Your task to perform on an android device: Open wifi settings Image 0: 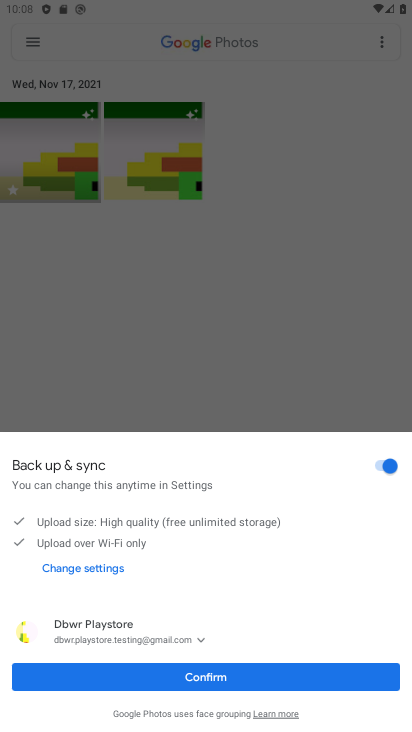
Step 0: press home button
Your task to perform on an android device: Open wifi settings Image 1: 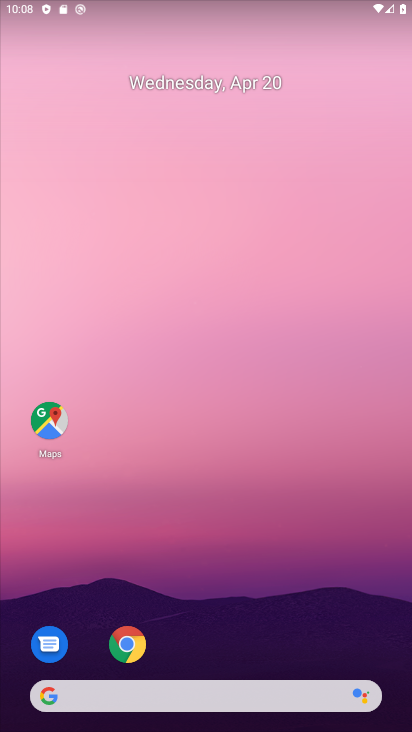
Step 1: drag from (206, 601) to (217, 12)
Your task to perform on an android device: Open wifi settings Image 2: 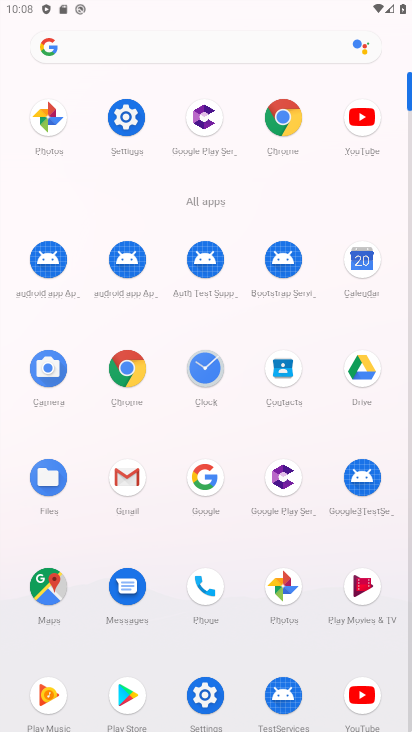
Step 2: click (135, 103)
Your task to perform on an android device: Open wifi settings Image 3: 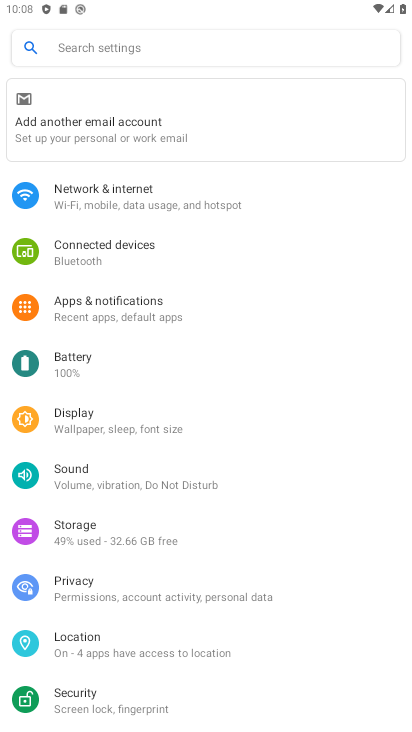
Step 3: click (152, 195)
Your task to perform on an android device: Open wifi settings Image 4: 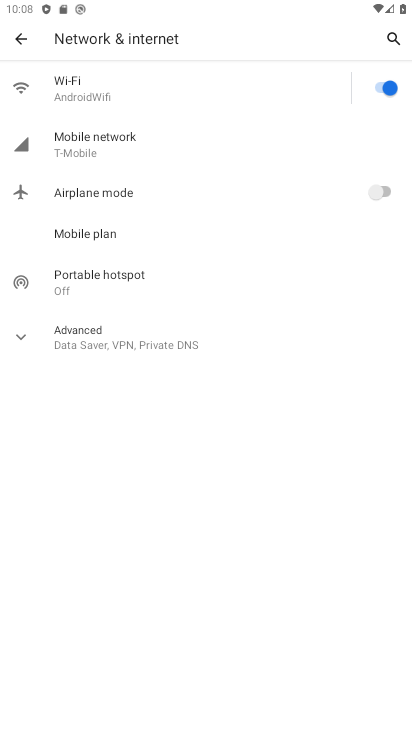
Step 4: click (156, 79)
Your task to perform on an android device: Open wifi settings Image 5: 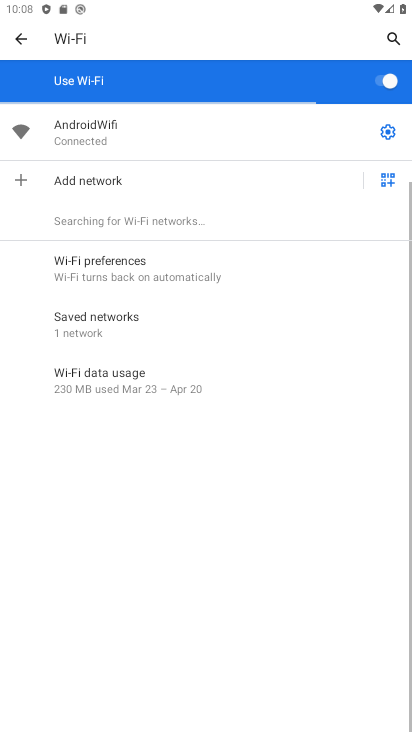
Step 5: task complete